Your task to perform on an android device: Add "apple airpods" to the cart on walmart.com, then select checkout. Image 0: 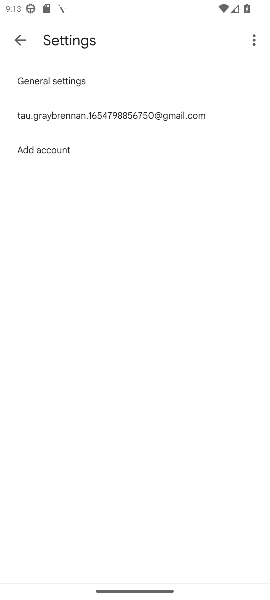
Step 0: press home button
Your task to perform on an android device: Add "apple airpods" to the cart on walmart.com, then select checkout. Image 1: 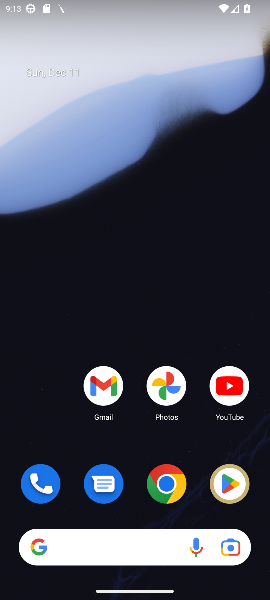
Step 1: click (176, 499)
Your task to perform on an android device: Add "apple airpods" to the cart on walmart.com, then select checkout. Image 2: 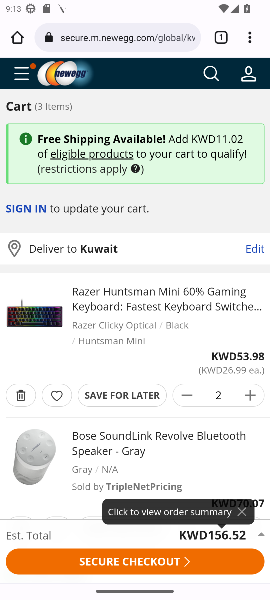
Step 2: click (214, 74)
Your task to perform on an android device: Add "apple airpods" to the cart on walmart.com, then select checkout. Image 3: 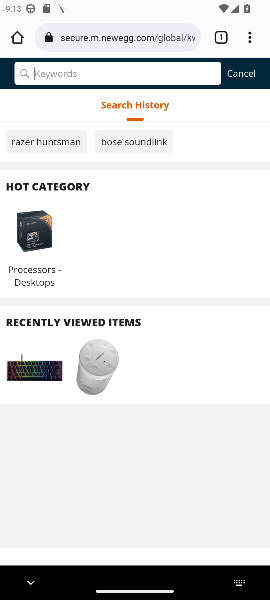
Step 3: click (181, 34)
Your task to perform on an android device: Add "apple airpods" to the cart on walmart.com, then select checkout. Image 4: 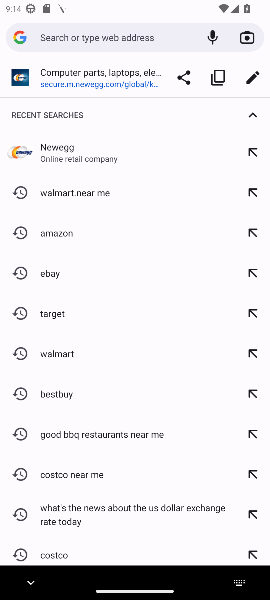
Step 4: click (58, 359)
Your task to perform on an android device: Add "apple airpods" to the cart on walmart.com, then select checkout. Image 5: 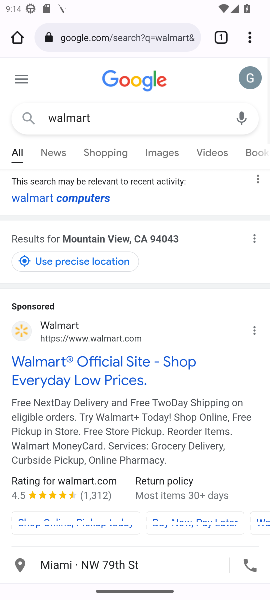
Step 5: click (109, 357)
Your task to perform on an android device: Add "apple airpods" to the cart on walmart.com, then select checkout. Image 6: 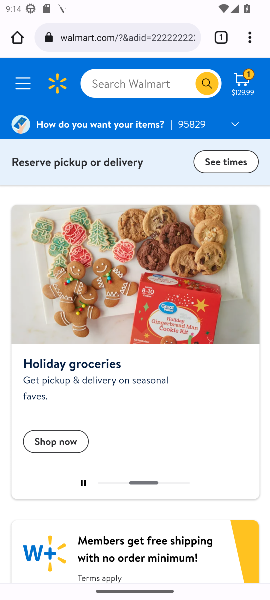
Step 6: click (128, 72)
Your task to perform on an android device: Add "apple airpods" to the cart on walmart.com, then select checkout. Image 7: 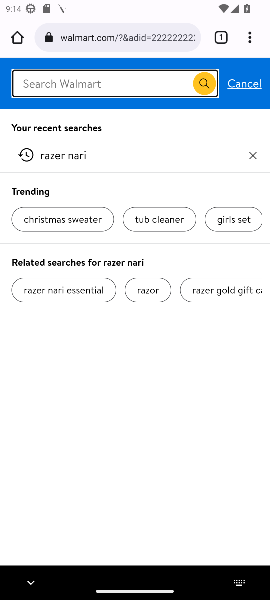
Step 7: type "apple airpods"
Your task to perform on an android device: Add "apple airpods" to the cart on walmart.com, then select checkout. Image 8: 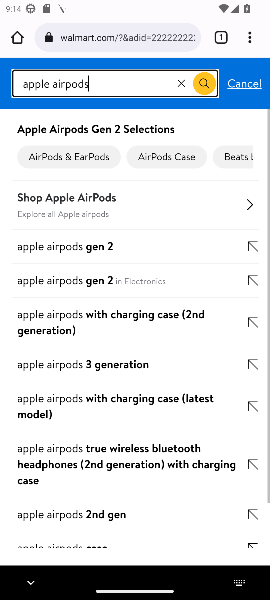
Step 8: click (206, 89)
Your task to perform on an android device: Add "apple airpods" to the cart on walmart.com, then select checkout. Image 9: 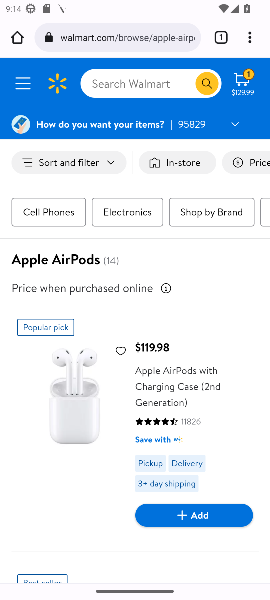
Step 9: click (193, 513)
Your task to perform on an android device: Add "apple airpods" to the cart on walmart.com, then select checkout. Image 10: 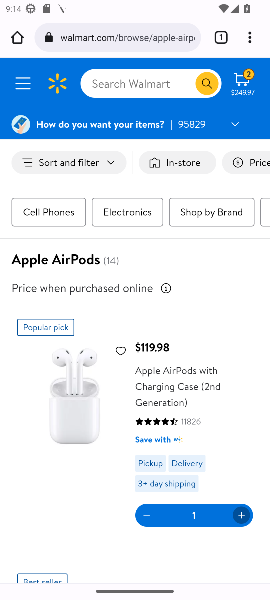
Step 10: click (248, 78)
Your task to perform on an android device: Add "apple airpods" to the cart on walmart.com, then select checkout. Image 11: 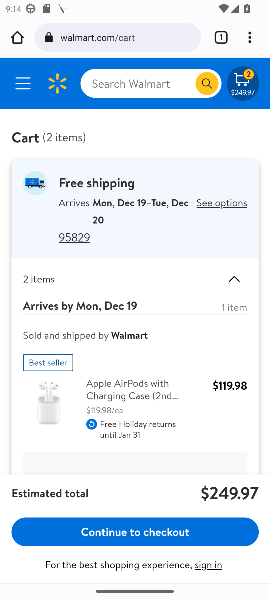
Step 11: click (103, 533)
Your task to perform on an android device: Add "apple airpods" to the cart on walmart.com, then select checkout. Image 12: 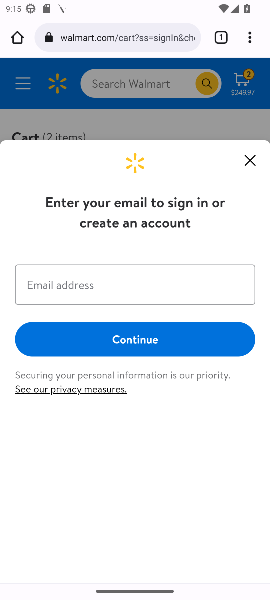
Step 12: task complete